Your task to perform on an android device: visit the assistant section in the google photos Image 0: 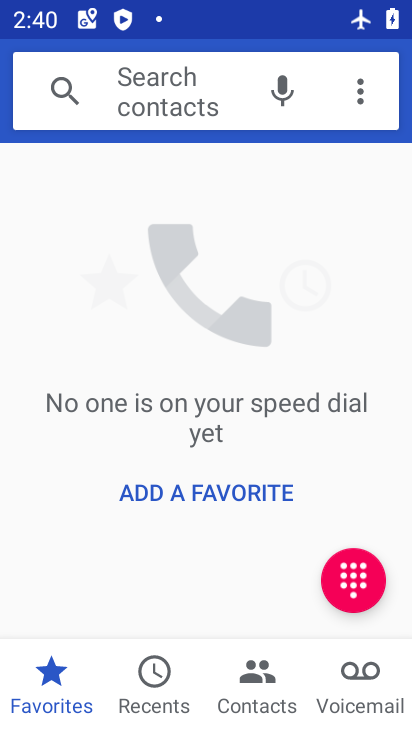
Step 0: press home button
Your task to perform on an android device: visit the assistant section in the google photos Image 1: 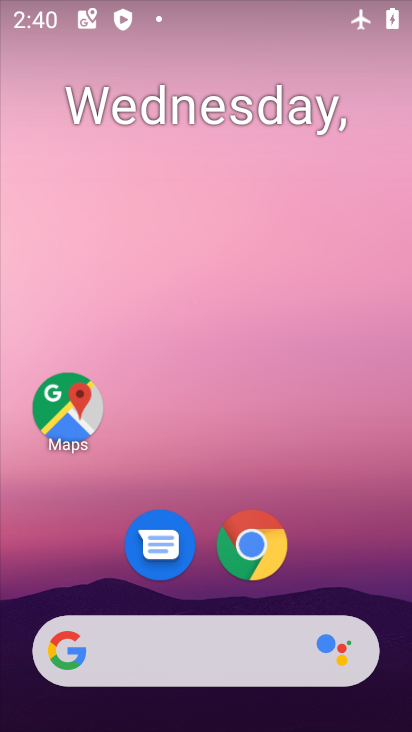
Step 1: drag from (337, 541) to (251, 115)
Your task to perform on an android device: visit the assistant section in the google photos Image 2: 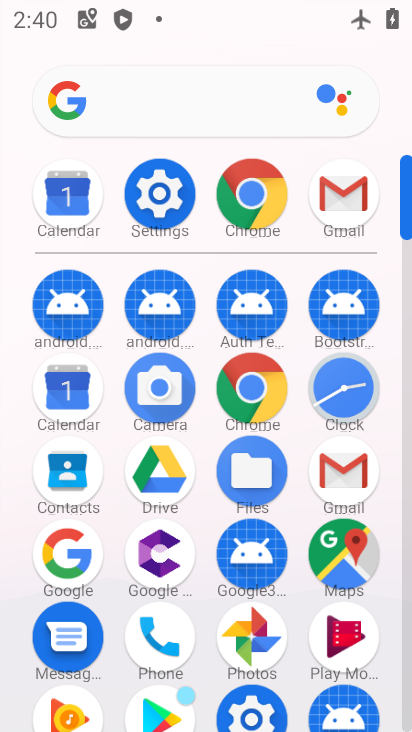
Step 2: click (264, 620)
Your task to perform on an android device: visit the assistant section in the google photos Image 3: 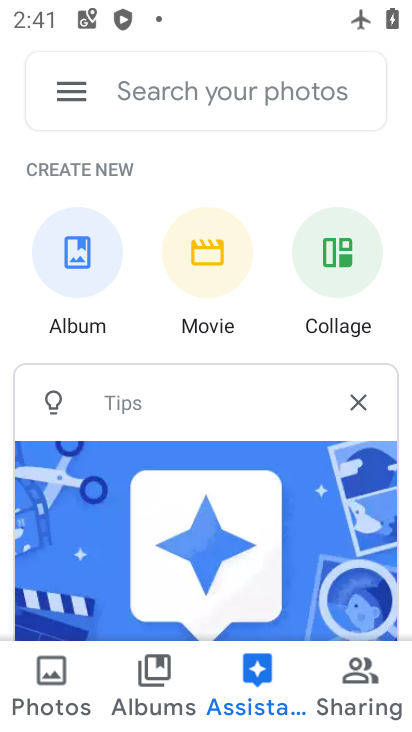
Step 3: task complete